Your task to perform on an android device: change the clock display to analog Image 0: 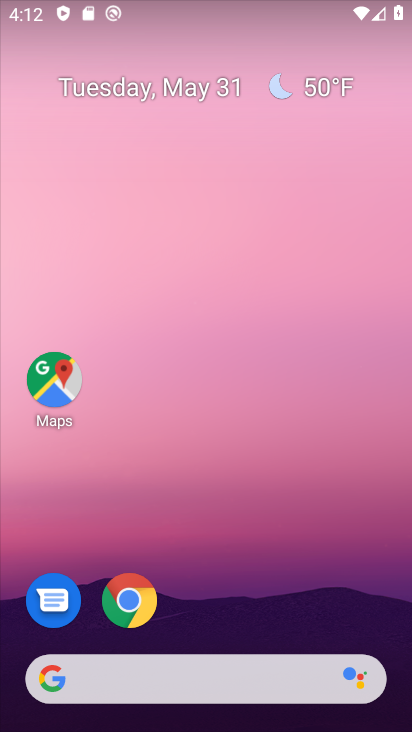
Step 0: drag from (263, 624) to (217, 106)
Your task to perform on an android device: change the clock display to analog Image 1: 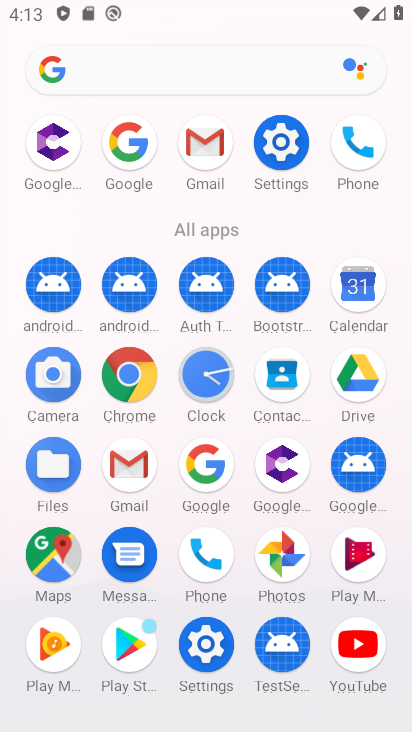
Step 1: click (209, 373)
Your task to perform on an android device: change the clock display to analog Image 2: 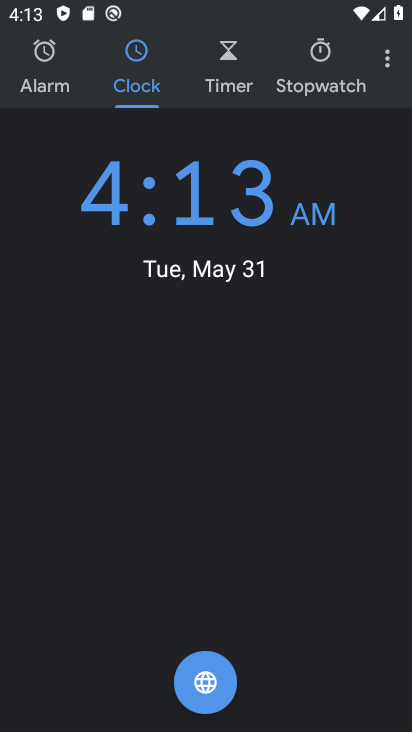
Step 2: click (389, 61)
Your task to perform on an android device: change the clock display to analog Image 3: 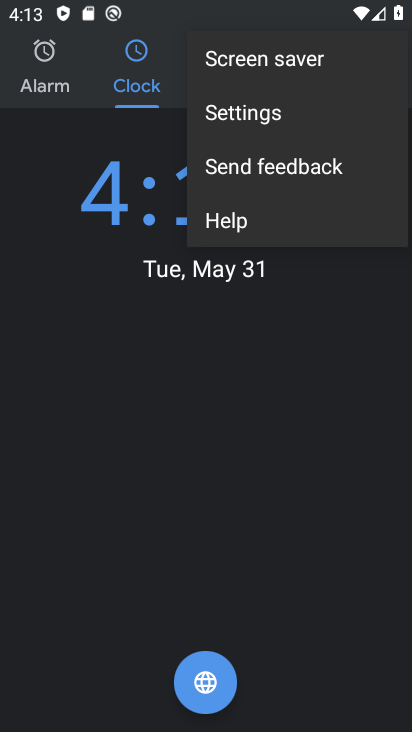
Step 3: click (268, 113)
Your task to perform on an android device: change the clock display to analog Image 4: 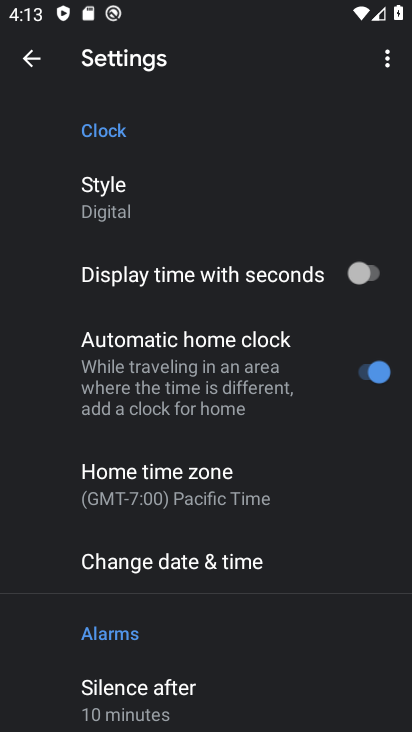
Step 4: click (137, 211)
Your task to perform on an android device: change the clock display to analog Image 5: 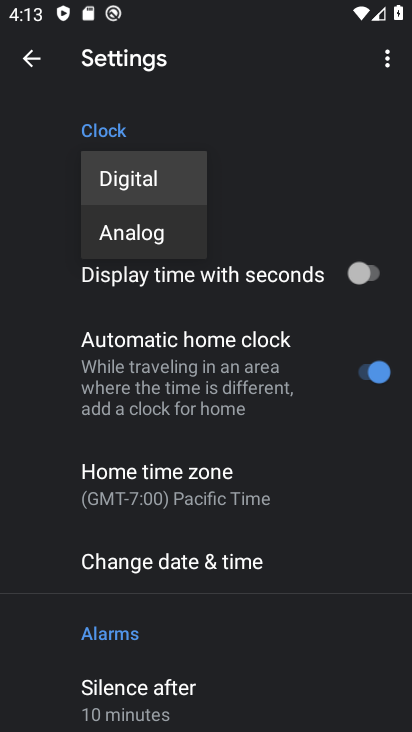
Step 5: click (161, 236)
Your task to perform on an android device: change the clock display to analog Image 6: 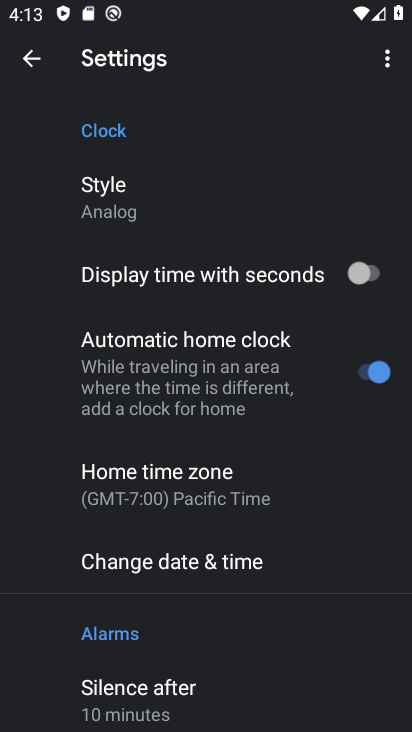
Step 6: task complete